Your task to perform on an android device: What's the weather today? Image 0: 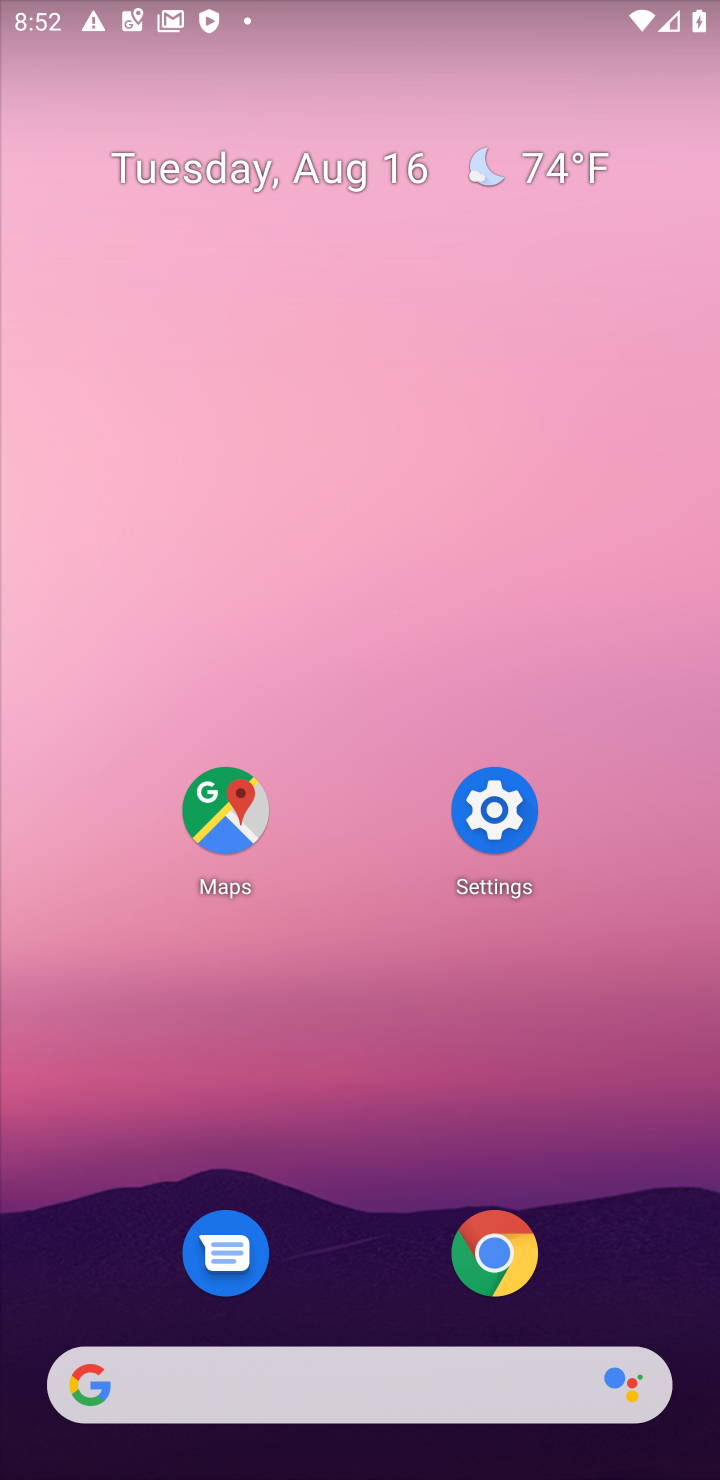
Step 0: click (248, 1371)
Your task to perform on an android device: What's the weather today? Image 1: 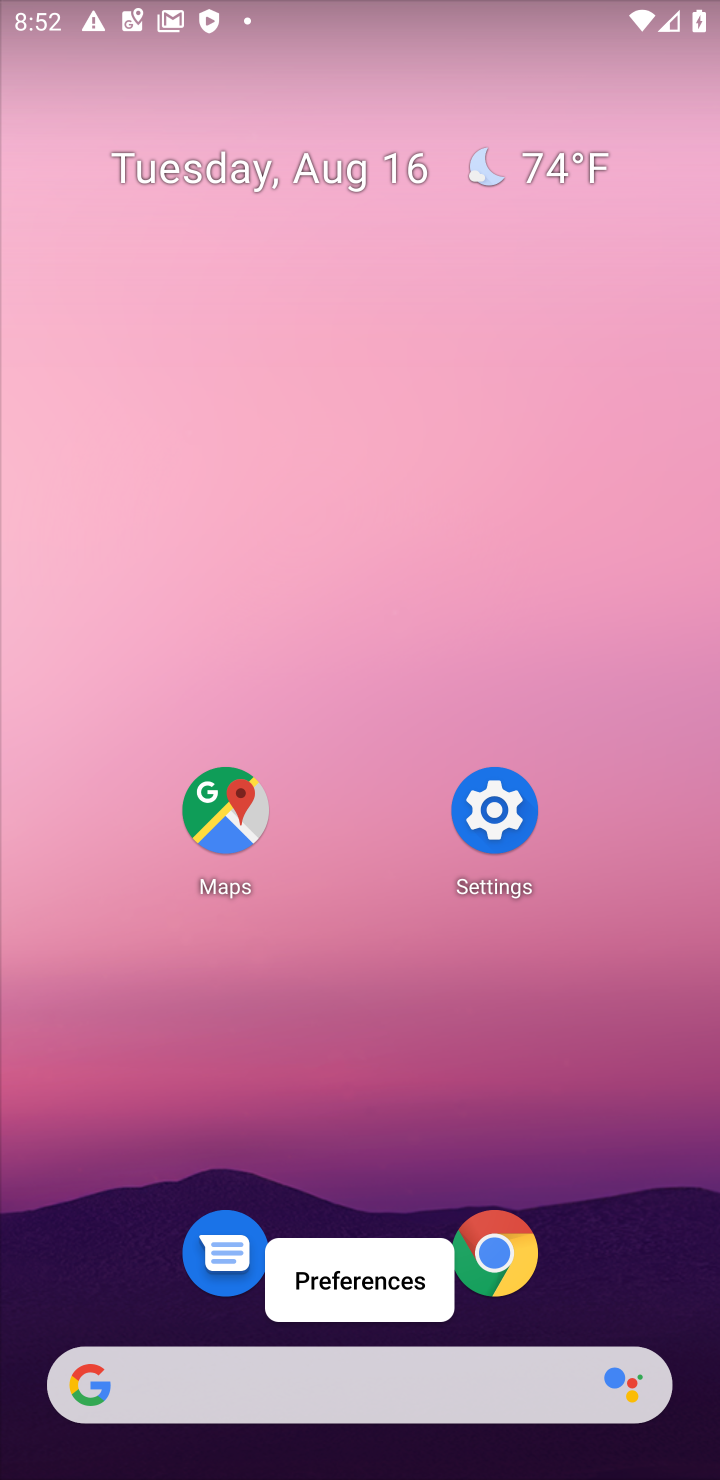
Step 1: click (267, 1365)
Your task to perform on an android device: What's the weather today? Image 2: 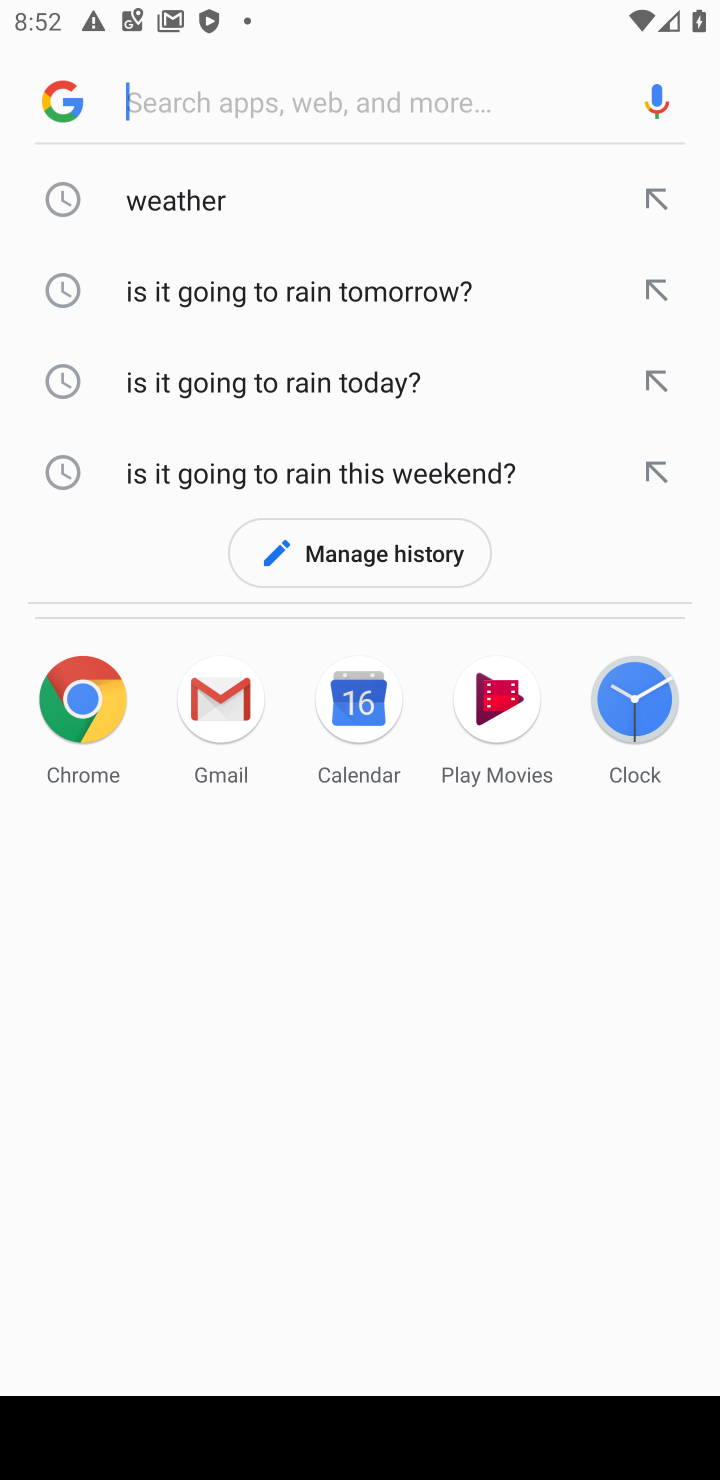
Step 2: click (179, 199)
Your task to perform on an android device: What's the weather today? Image 3: 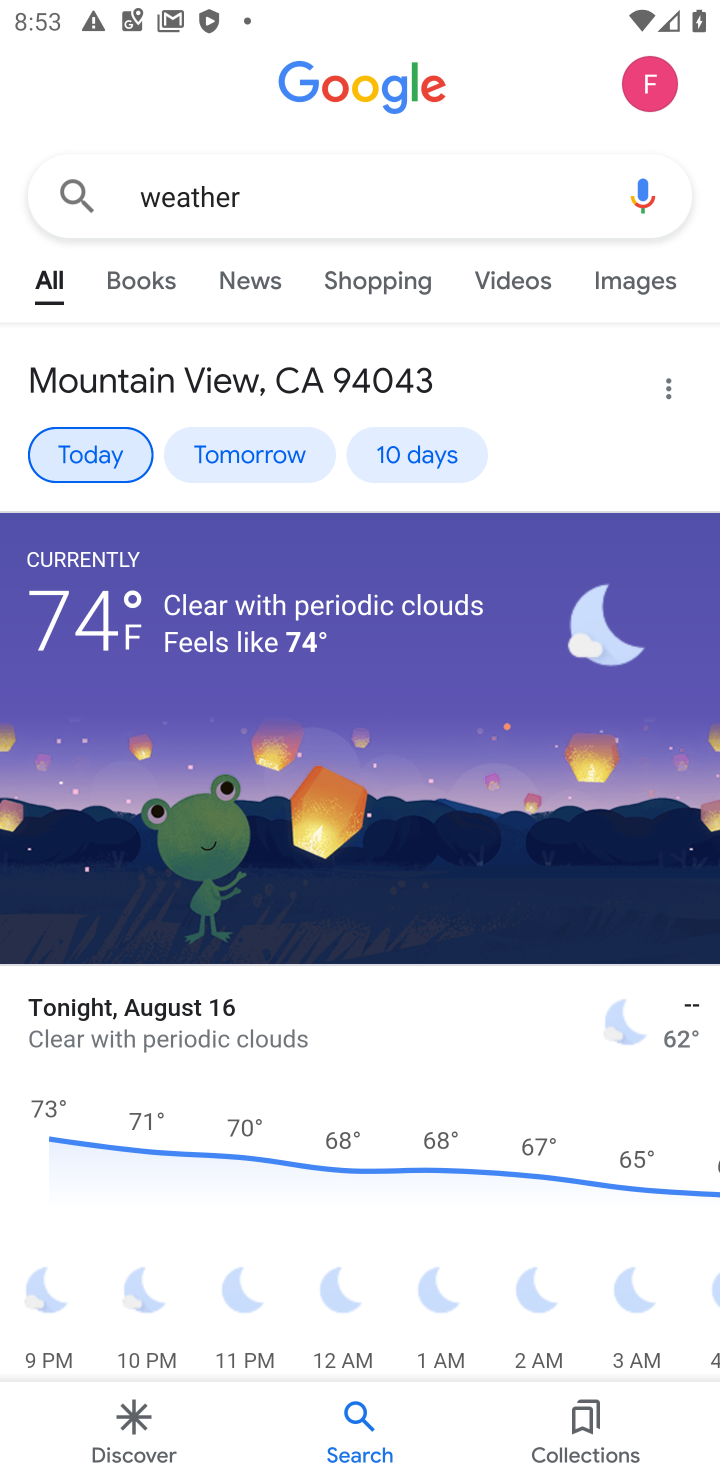
Step 3: task complete